Your task to perform on an android device: turn on priority inbox in the gmail app Image 0: 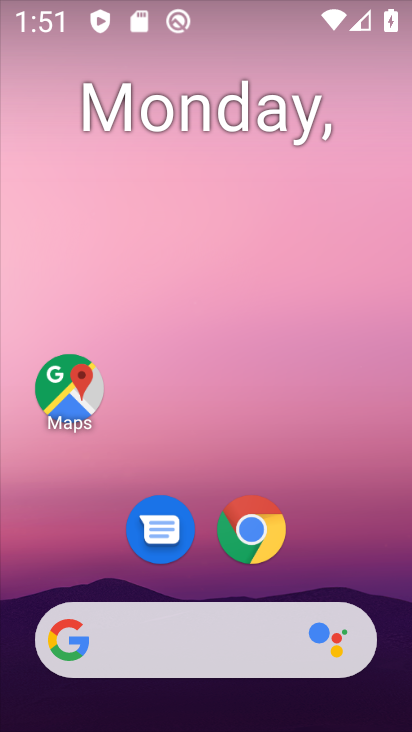
Step 0: drag from (63, 605) to (174, 221)
Your task to perform on an android device: turn on priority inbox in the gmail app Image 1: 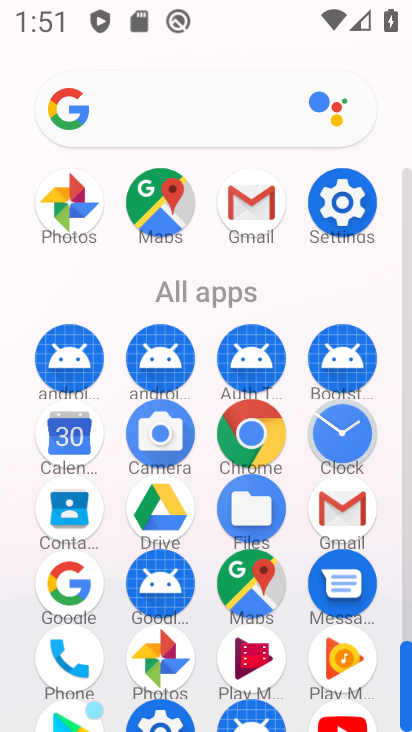
Step 1: drag from (181, 624) to (210, 491)
Your task to perform on an android device: turn on priority inbox in the gmail app Image 2: 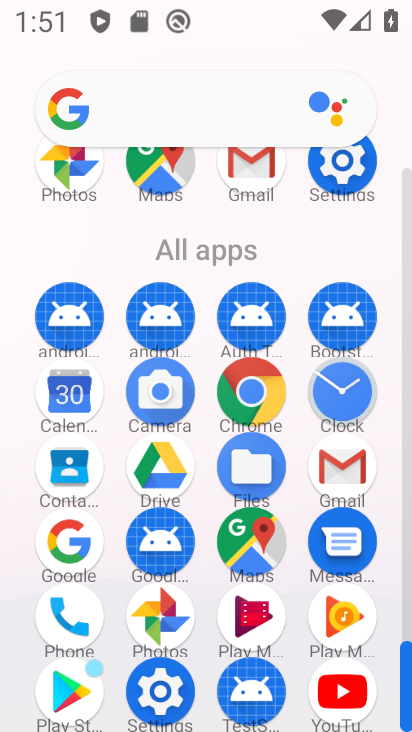
Step 2: click (350, 483)
Your task to perform on an android device: turn on priority inbox in the gmail app Image 3: 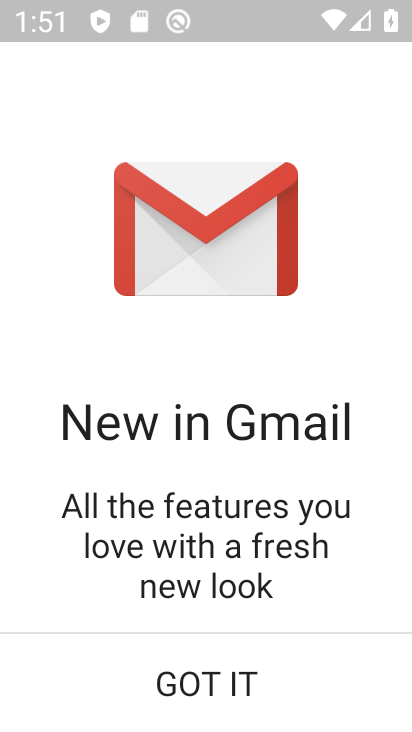
Step 3: click (228, 679)
Your task to perform on an android device: turn on priority inbox in the gmail app Image 4: 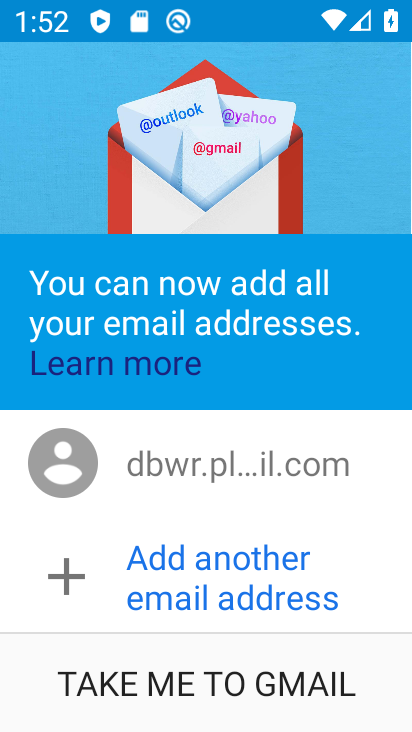
Step 4: click (241, 698)
Your task to perform on an android device: turn on priority inbox in the gmail app Image 5: 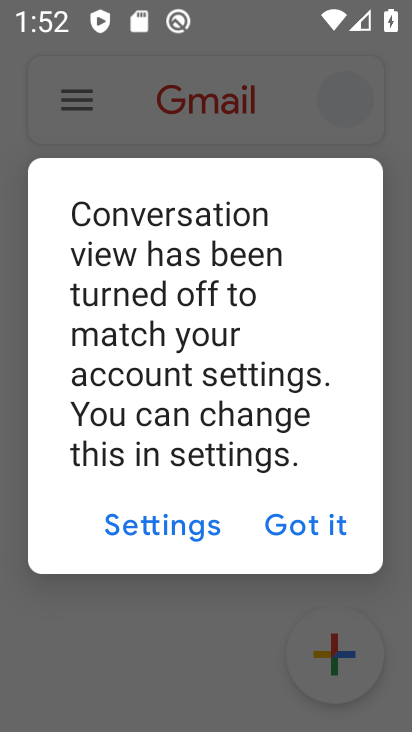
Step 5: click (311, 532)
Your task to perform on an android device: turn on priority inbox in the gmail app Image 6: 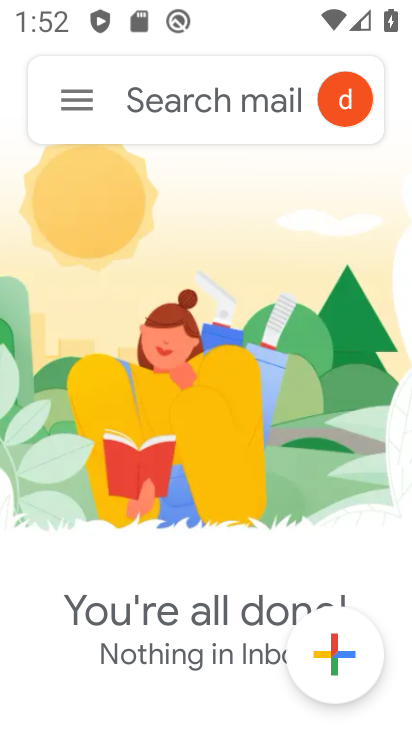
Step 6: click (83, 121)
Your task to perform on an android device: turn on priority inbox in the gmail app Image 7: 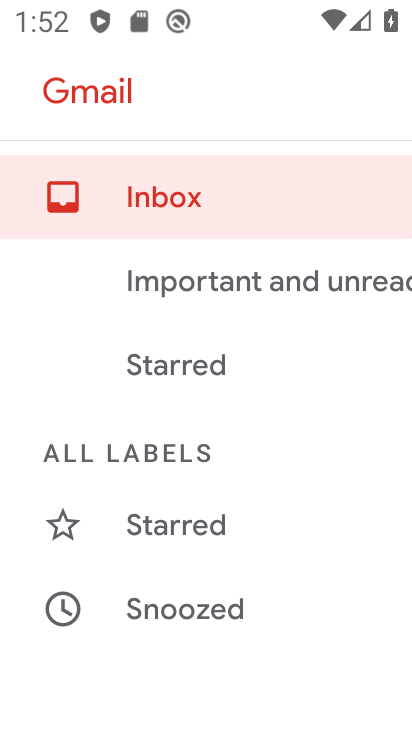
Step 7: drag from (157, 587) to (275, 81)
Your task to perform on an android device: turn on priority inbox in the gmail app Image 8: 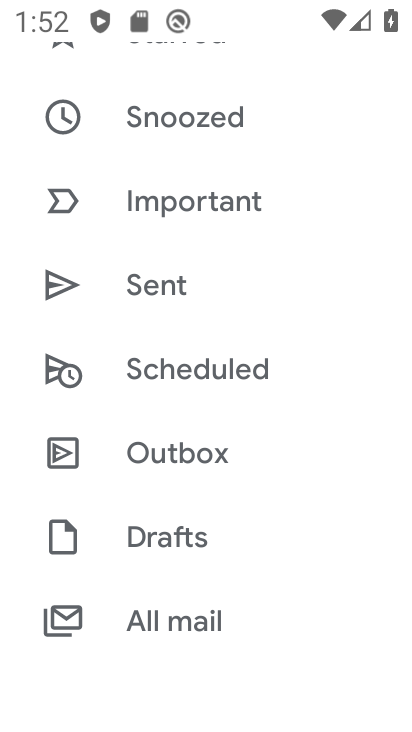
Step 8: drag from (239, 552) to (319, 146)
Your task to perform on an android device: turn on priority inbox in the gmail app Image 9: 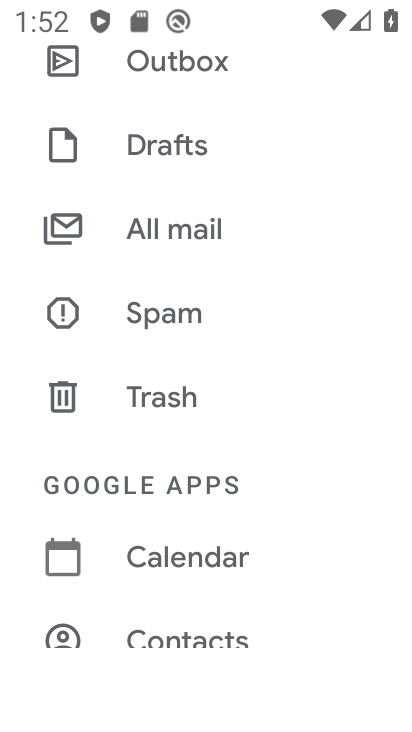
Step 9: drag from (227, 616) to (316, 179)
Your task to perform on an android device: turn on priority inbox in the gmail app Image 10: 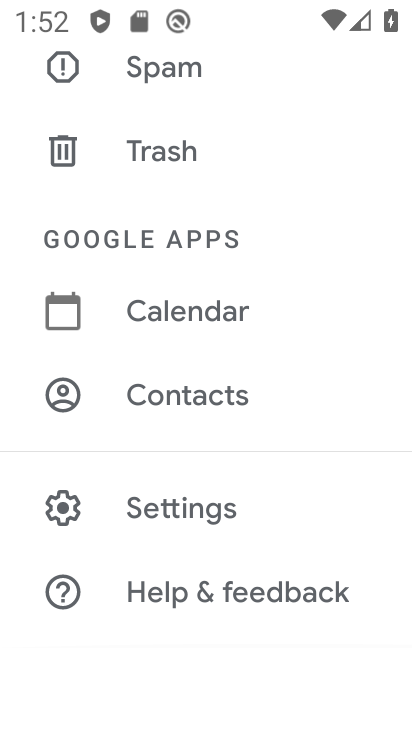
Step 10: click (245, 522)
Your task to perform on an android device: turn on priority inbox in the gmail app Image 11: 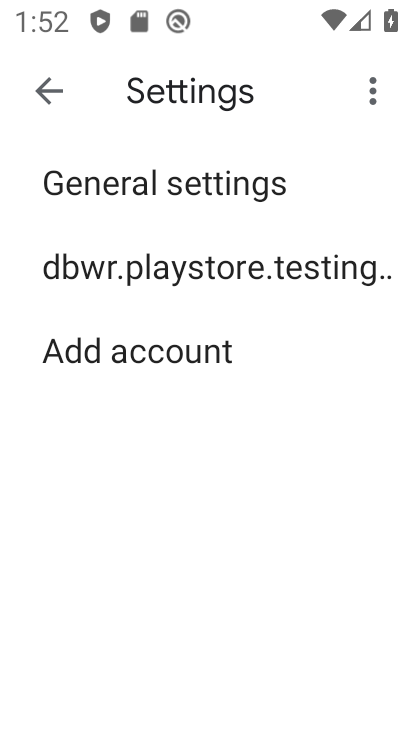
Step 11: click (307, 273)
Your task to perform on an android device: turn on priority inbox in the gmail app Image 12: 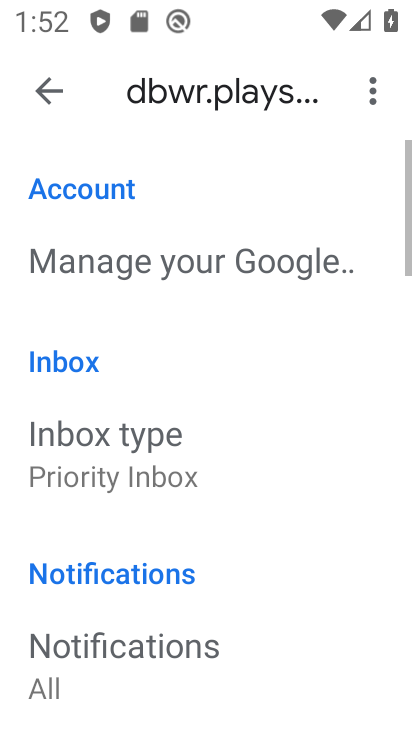
Step 12: task complete